Your task to perform on an android device: Open Youtube and go to the subscriptions tab Image 0: 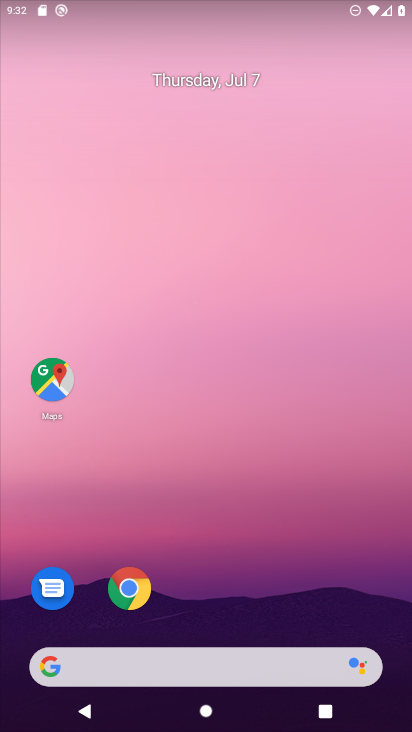
Step 0: drag from (221, 605) to (300, 40)
Your task to perform on an android device: Open Youtube and go to the subscriptions tab Image 1: 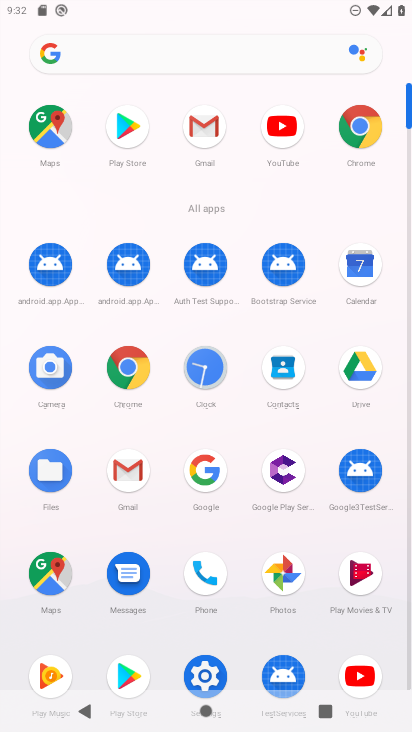
Step 1: click (370, 671)
Your task to perform on an android device: Open Youtube and go to the subscriptions tab Image 2: 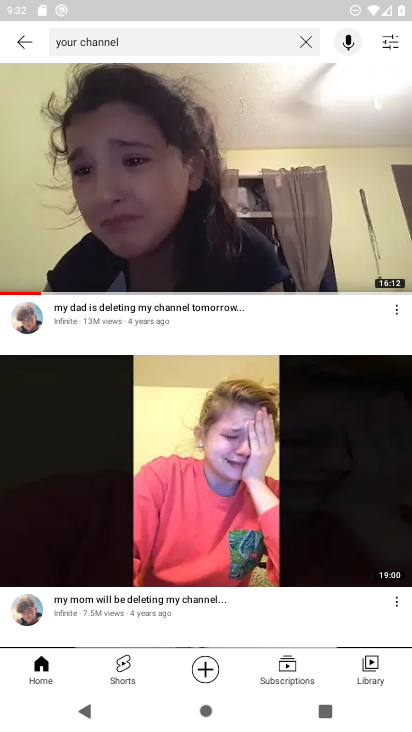
Step 2: click (298, 668)
Your task to perform on an android device: Open Youtube and go to the subscriptions tab Image 3: 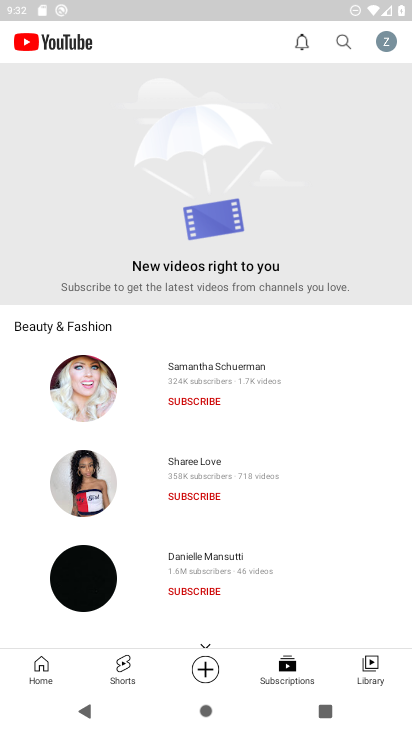
Step 3: task complete